Your task to perform on an android device: Go to Yahoo.com Image 0: 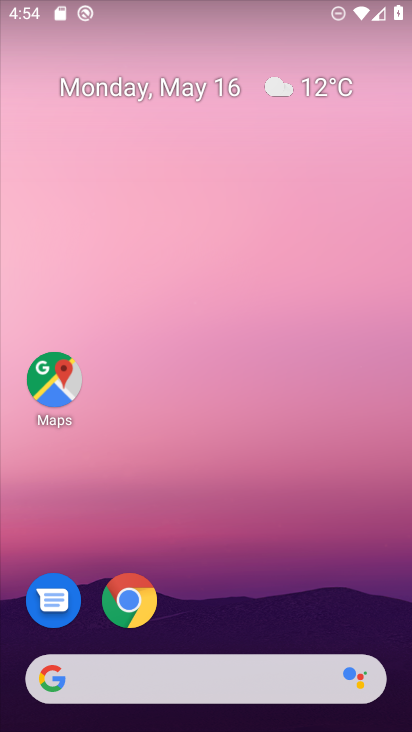
Step 0: click (128, 598)
Your task to perform on an android device: Go to Yahoo.com Image 1: 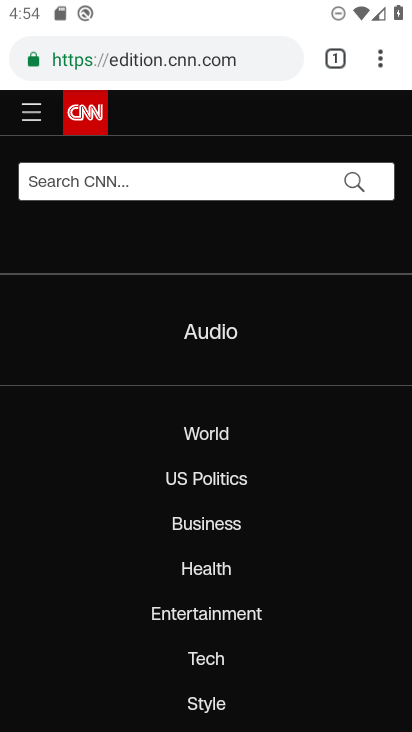
Step 1: click (135, 63)
Your task to perform on an android device: Go to Yahoo.com Image 2: 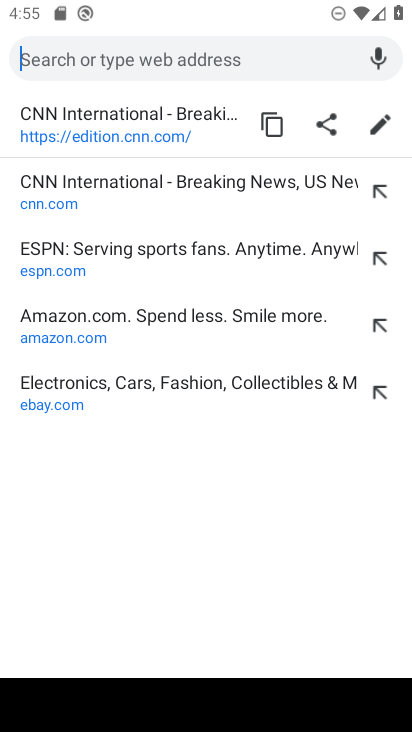
Step 2: type "yahoo.com"
Your task to perform on an android device: Go to Yahoo.com Image 3: 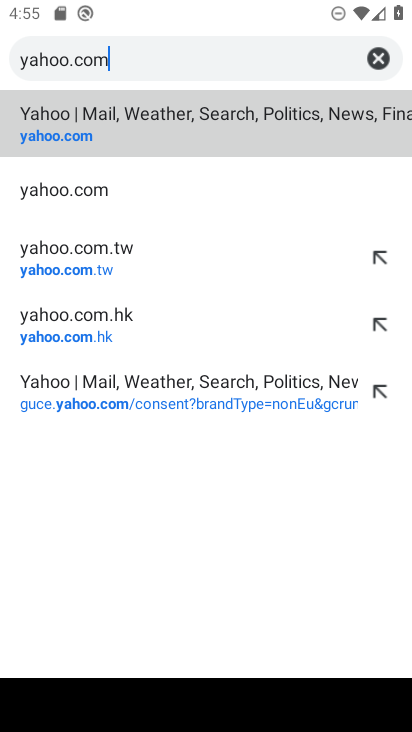
Step 3: click (53, 122)
Your task to perform on an android device: Go to Yahoo.com Image 4: 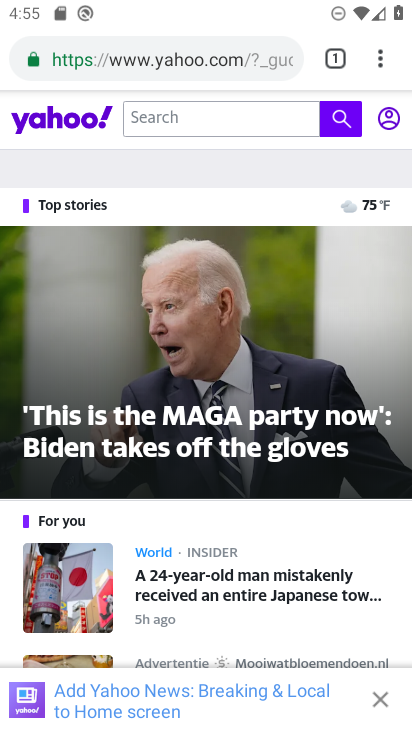
Step 4: task complete